Your task to perform on an android device: turn off priority inbox in the gmail app Image 0: 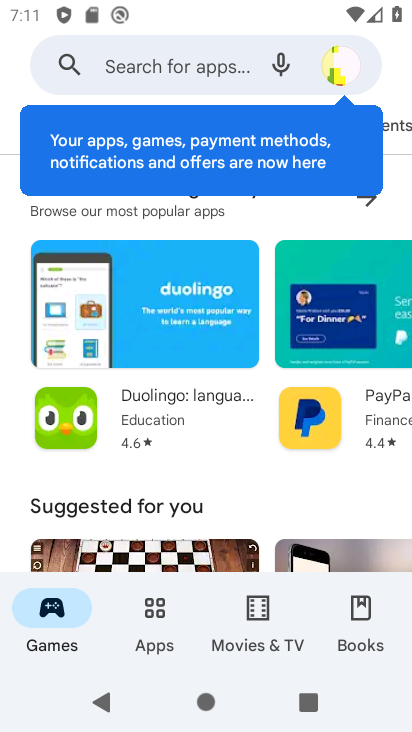
Step 0: press home button
Your task to perform on an android device: turn off priority inbox in the gmail app Image 1: 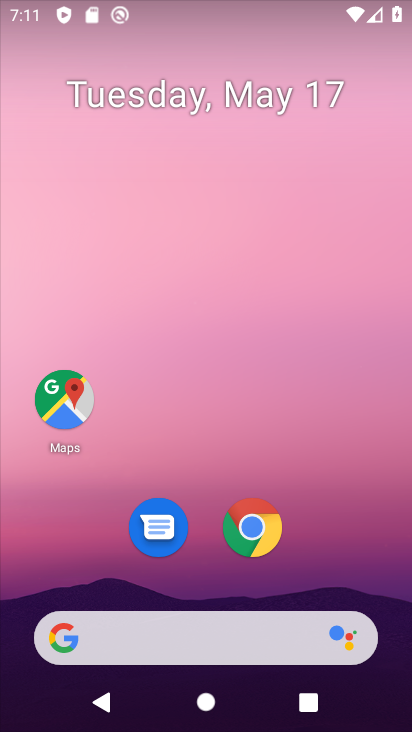
Step 1: drag from (304, 506) to (336, 147)
Your task to perform on an android device: turn off priority inbox in the gmail app Image 2: 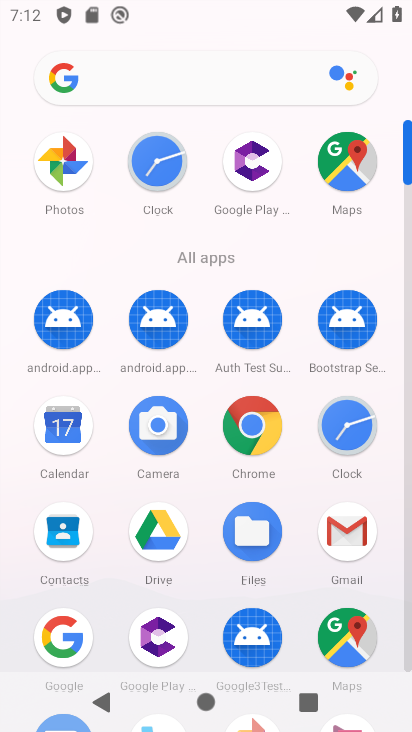
Step 2: click (332, 513)
Your task to perform on an android device: turn off priority inbox in the gmail app Image 3: 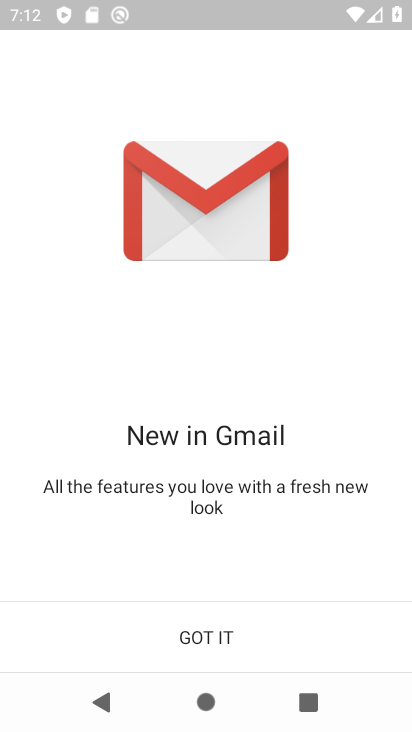
Step 3: click (255, 650)
Your task to perform on an android device: turn off priority inbox in the gmail app Image 4: 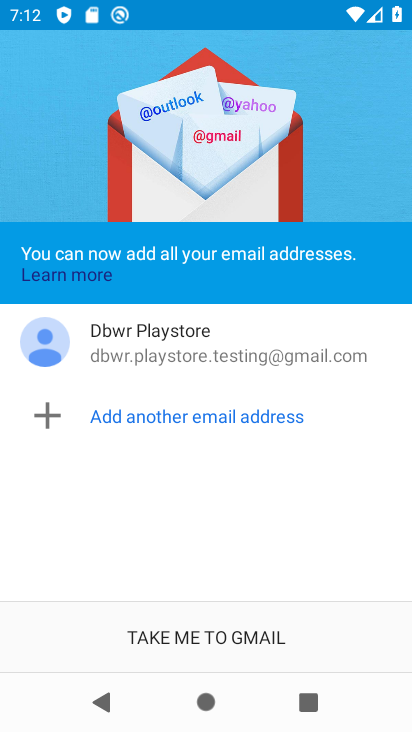
Step 4: click (258, 651)
Your task to perform on an android device: turn off priority inbox in the gmail app Image 5: 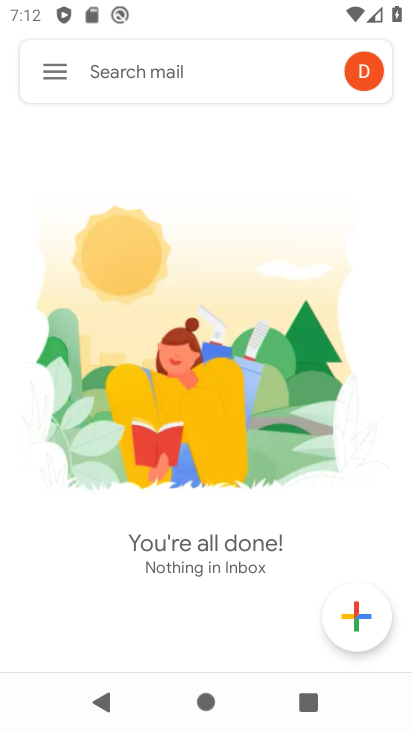
Step 5: click (61, 81)
Your task to perform on an android device: turn off priority inbox in the gmail app Image 6: 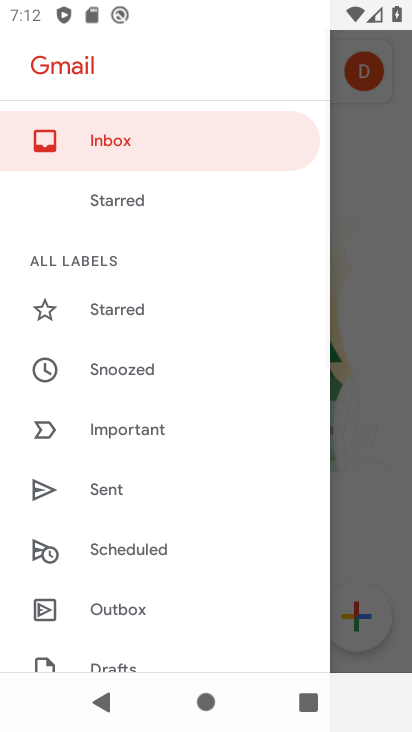
Step 6: drag from (185, 560) to (169, 102)
Your task to perform on an android device: turn off priority inbox in the gmail app Image 7: 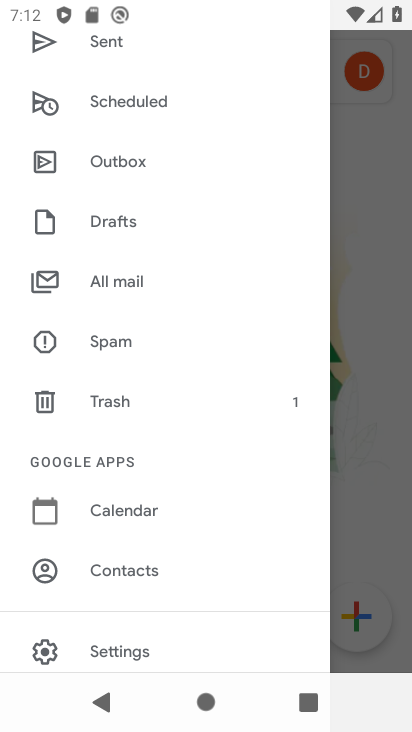
Step 7: drag from (150, 538) to (133, 298)
Your task to perform on an android device: turn off priority inbox in the gmail app Image 8: 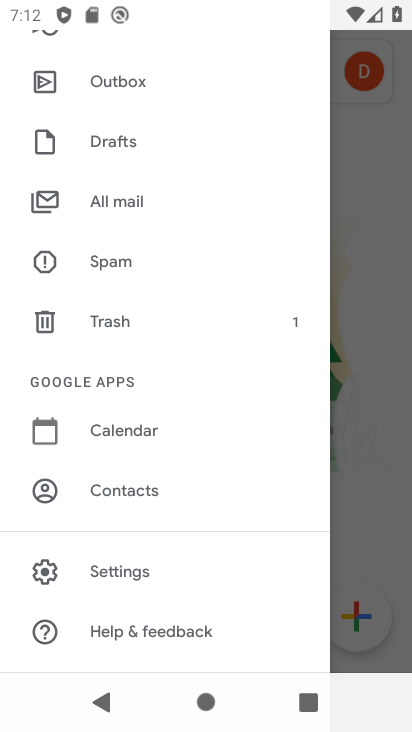
Step 8: click (133, 573)
Your task to perform on an android device: turn off priority inbox in the gmail app Image 9: 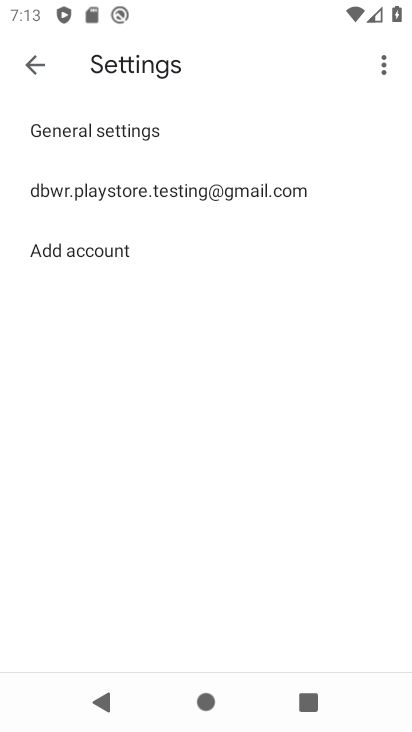
Step 9: click (170, 195)
Your task to perform on an android device: turn off priority inbox in the gmail app Image 10: 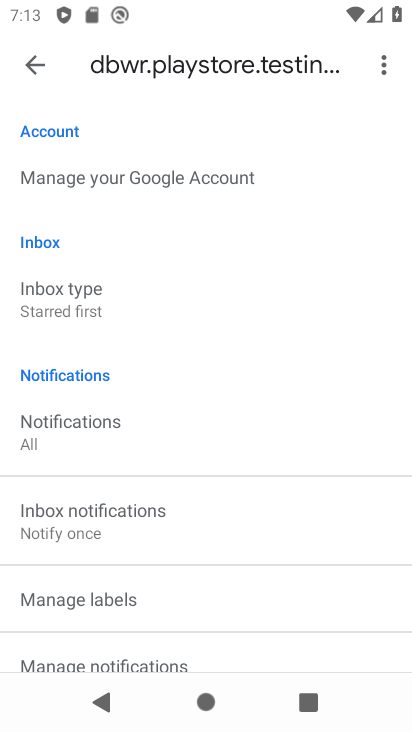
Step 10: drag from (191, 580) to (176, 271)
Your task to perform on an android device: turn off priority inbox in the gmail app Image 11: 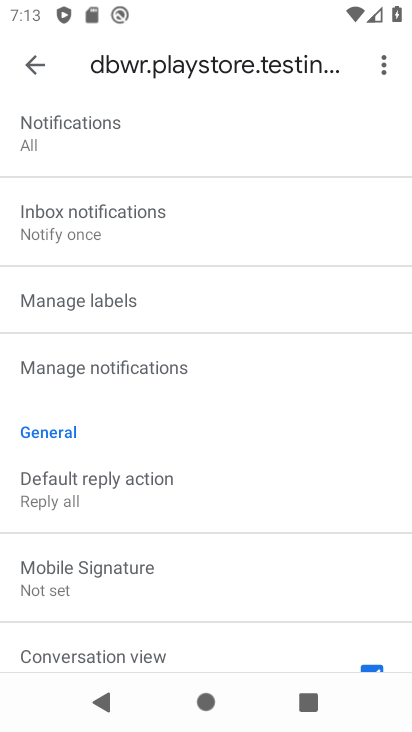
Step 11: click (176, 271)
Your task to perform on an android device: turn off priority inbox in the gmail app Image 12: 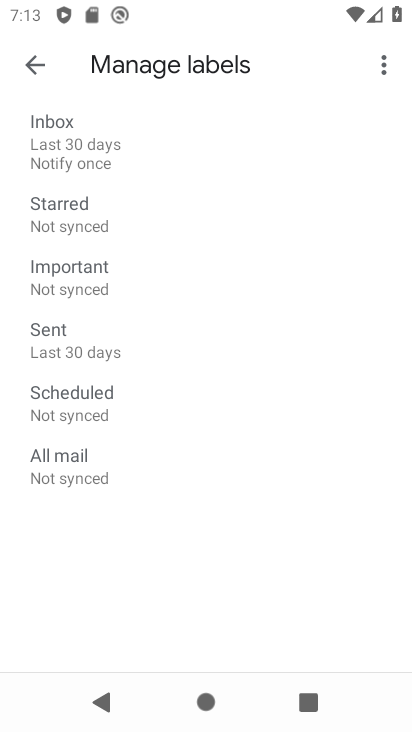
Step 12: drag from (177, 516) to (106, 77)
Your task to perform on an android device: turn off priority inbox in the gmail app Image 13: 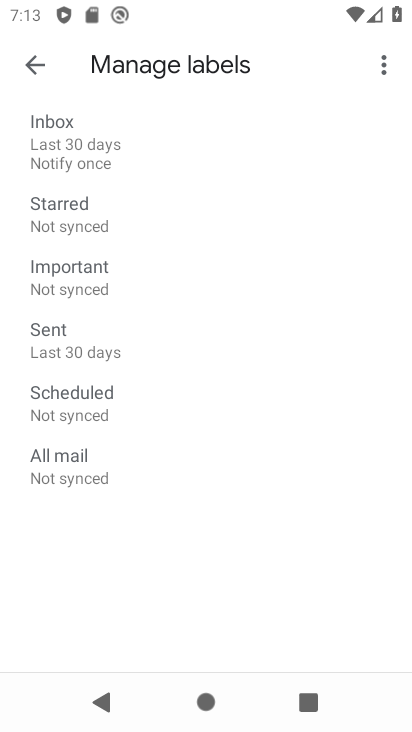
Step 13: click (55, 61)
Your task to perform on an android device: turn off priority inbox in the gmail app Image 14: 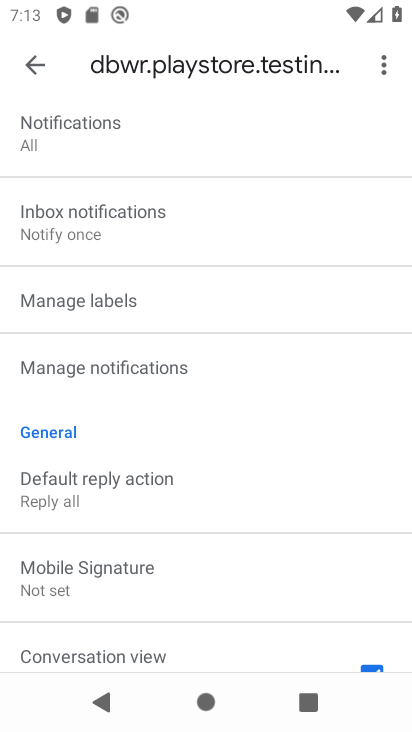
Step 14: click (142, 560)
Your task to perform on an android device: turn off priority inbox in the gmail app Image 15: 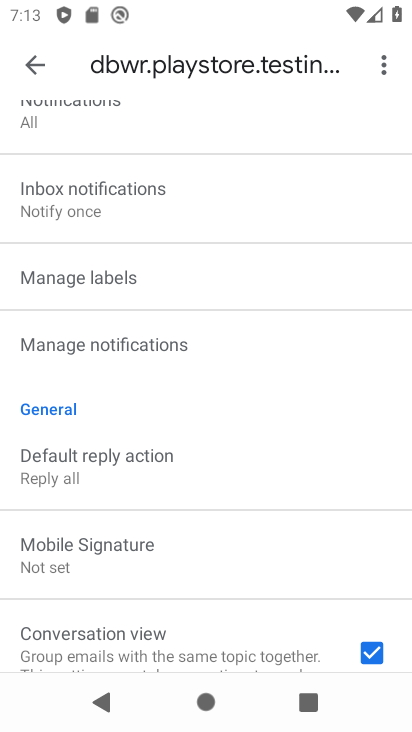
Step 15: drag from (108, 187) to (127, 414)
Your task to perform on an android device: turn off priority inbox in the gmail app Image 16: 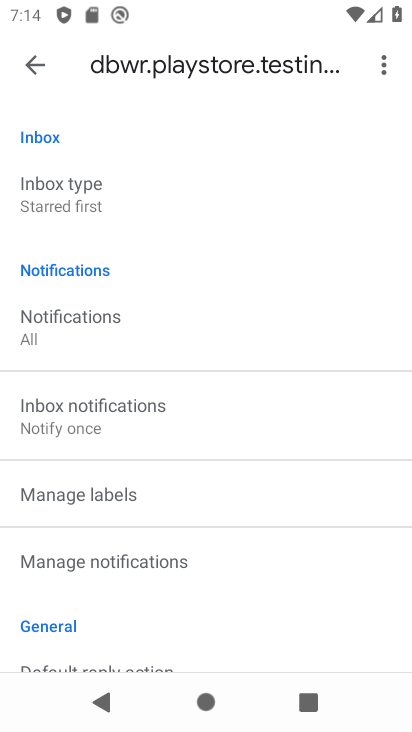
Step 16: click (125, 200)
Your task to perform on an android device: turn off priority inbox in the gmail app Image 17: 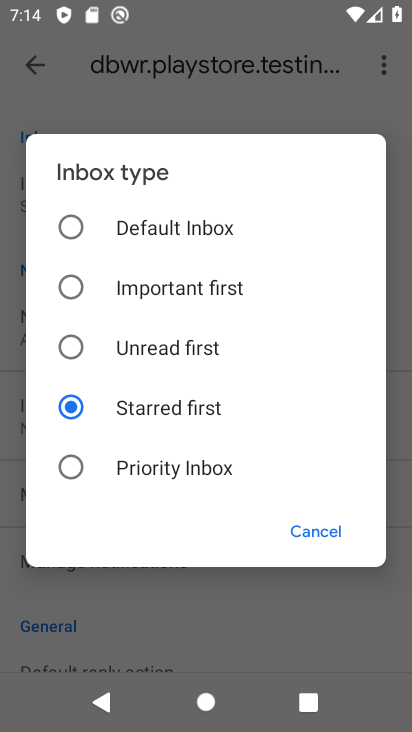
Step 17: task complete